Your task to perform on an android device: turn off javascript in the chrome app Image 0: 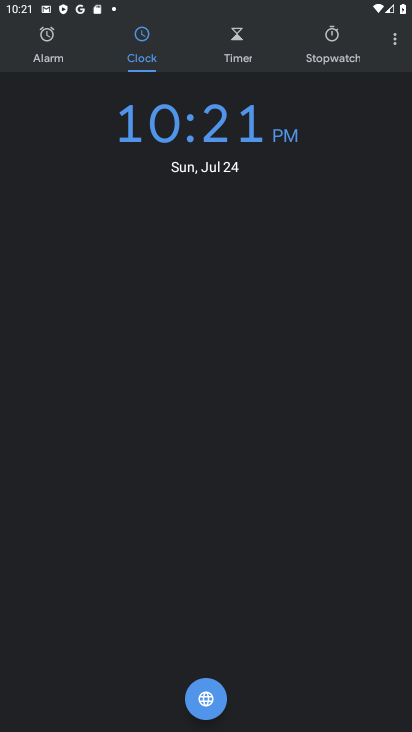
Step 0: press home button
Your task to perform on an android device: turn off javascript in the chrome app Image 1: 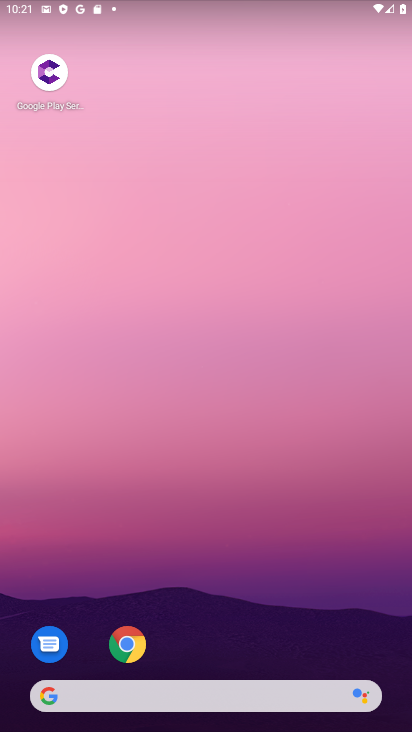
Step 1: click (133, 636)
Your task to perform on an android device: turn off javascript in the chrome app Image 2: 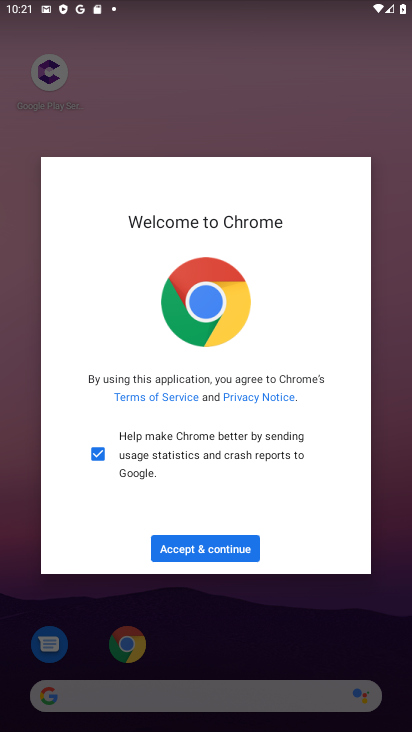
Step 2: click (206, 557)
Your task to perform on an android device: turn off javascript in the chrome app Image 3: 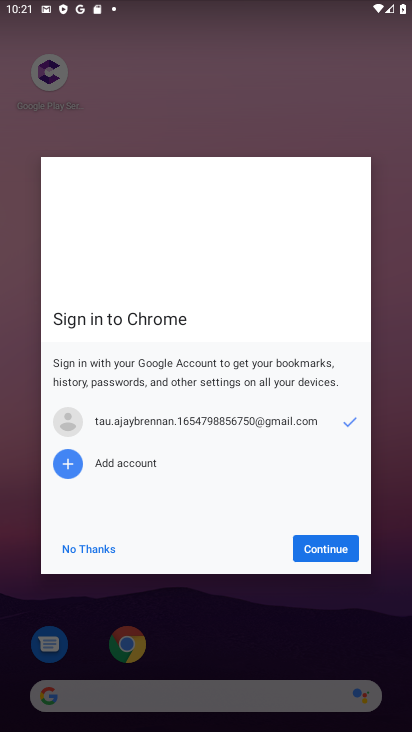
Step 3: click (303, 535)
Your task to perform on an android device: turn off javascript in the chrome app Image 4: 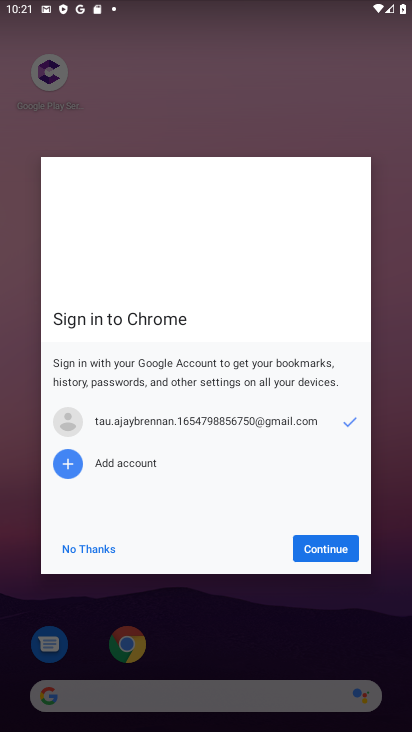
Step 4: click (326, 548)
Your task to perform on an android device: turn off javascript in the chrome app Image 5: 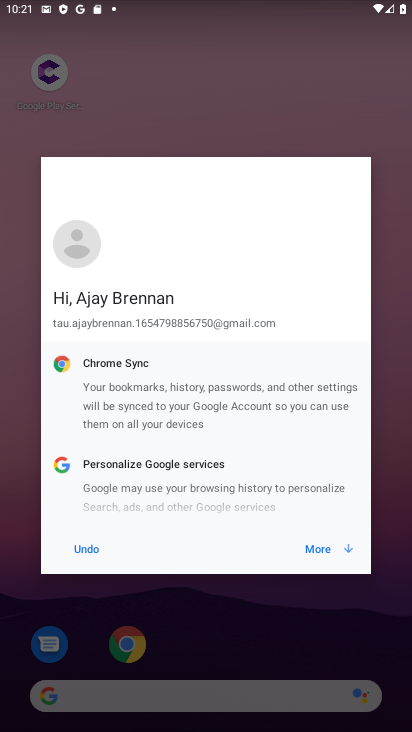
Step 5: click (321, 542)
Your task to perform on an android device: turn off javascript in the chrome app Image 6: 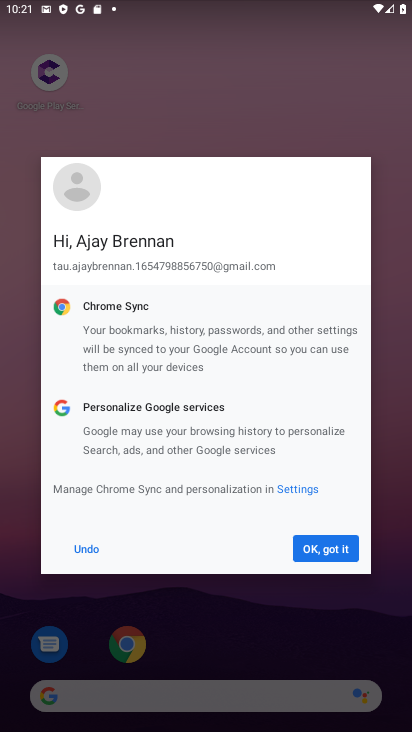
Step 6: click (307, 540)
Your task to perform on an android device: turn off javascript in the chrome app Image 7: 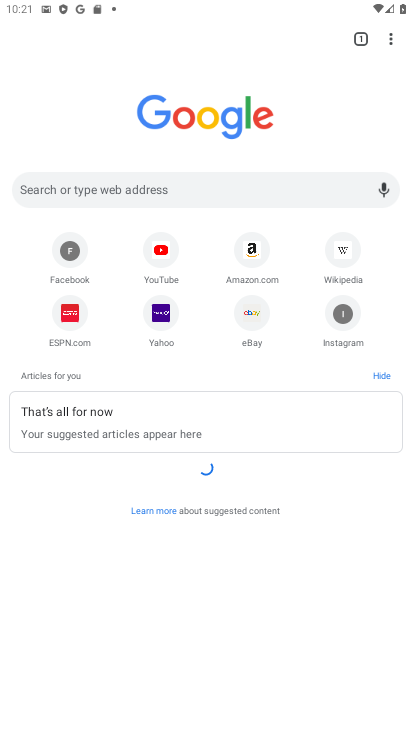
Step 7: click (395, 33)
Your task to perform on an android device: turn off javascript in the chrome app Image 8: 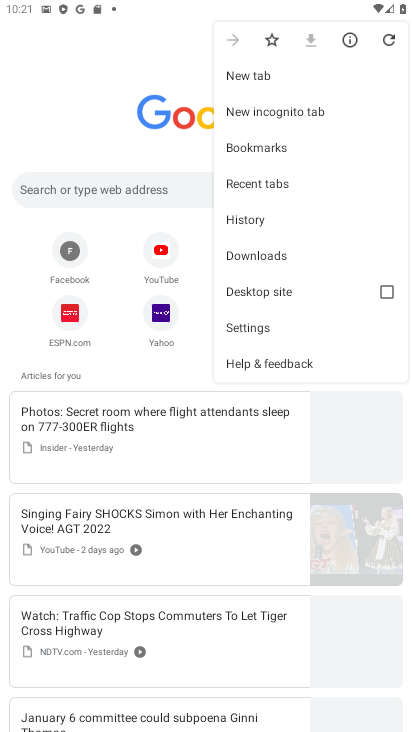
Step 8: click (263, 335)
Your task to perform on an android device: turn off javascript in the chrome app Image 9: 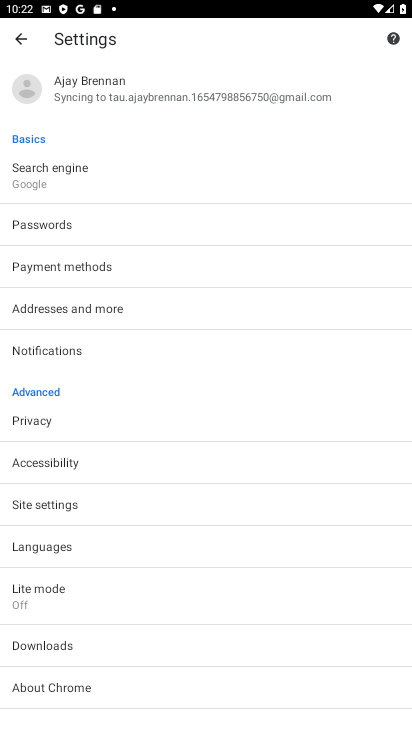
Step 9: click (68, 491)
Your task to perform on an android device: turn off javascript in the chrome app Image 10: 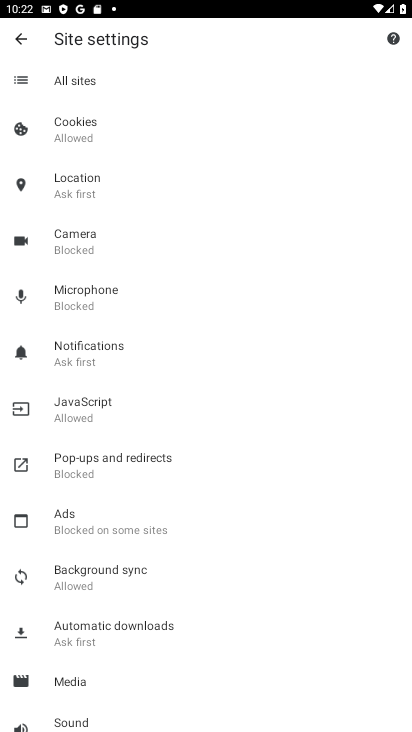
Step 10: click (114, 388)
Your task to perform on an android device: turn off javascript in the chrome app Image 11: 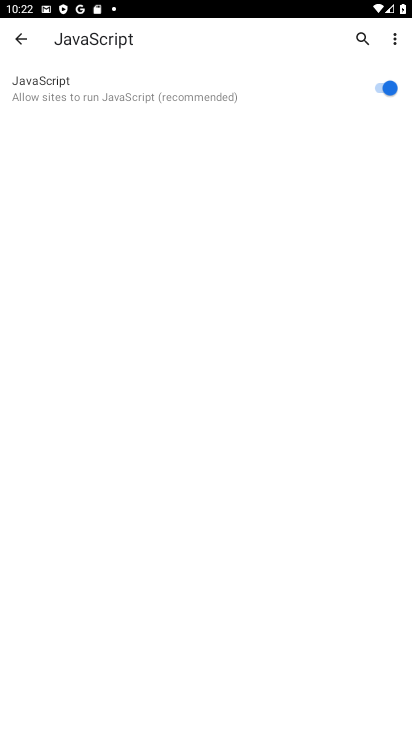
Step 11: click (391, 72)
Your task to perform on an android device: turn off javascript in the chrome app Image 12: 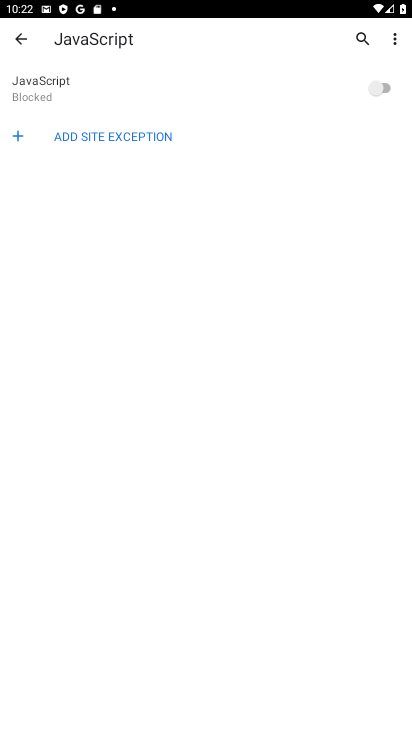
Step 12: task complete